Your task to perform on an android device: turn off picture-in-picture Image 0: 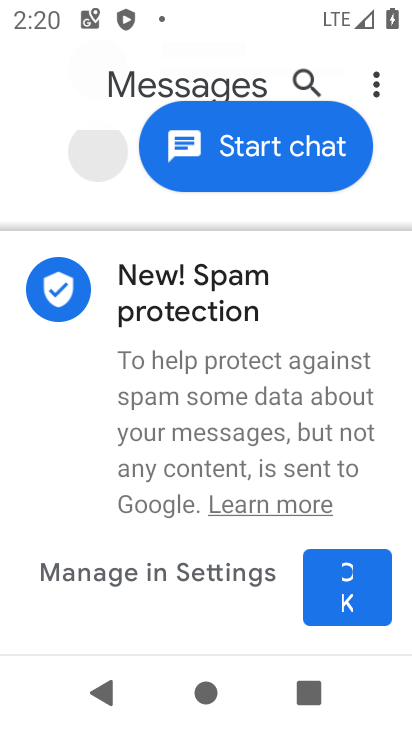
Step 0: press home button
Your task to perform on an android device: turn off picture-in-picture Image 1: 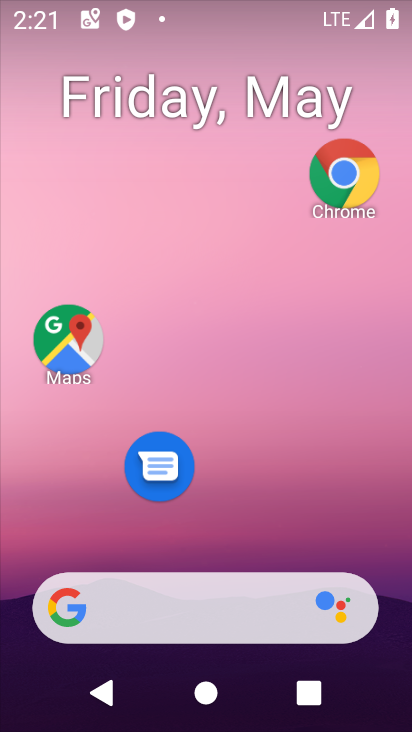
Step 1: drag from (330, 176) to (325, 278)
Your task to perform on an android device: turn off picture-in-picture Image 2: 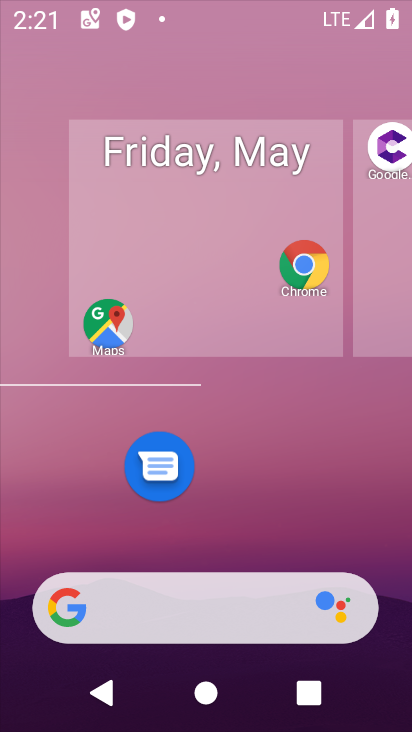
Step 2: click (274, 444)
Your task to perform on an android device: turn off picture-in-picture Image 3: 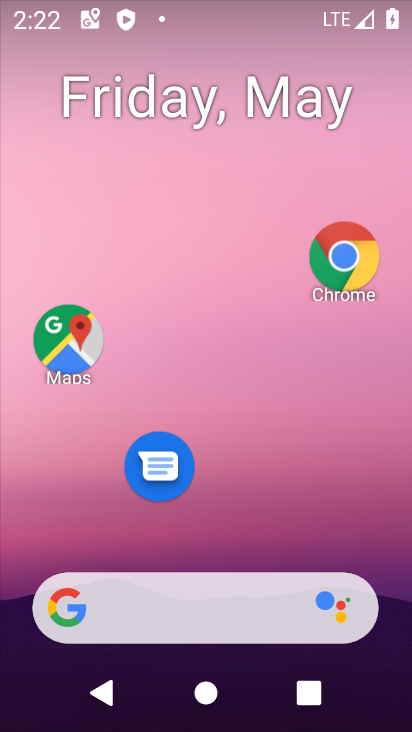
Step 3: click (343, 274)
Your task to perform on an android device: turn off picture-in-picture Image 4: 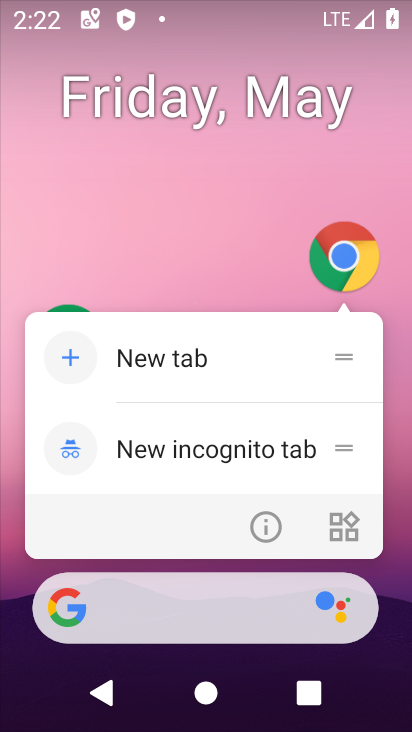
Step 4: click (267, 518)
Your task to perform on an android device: turn off picture-in-picture Image 5: 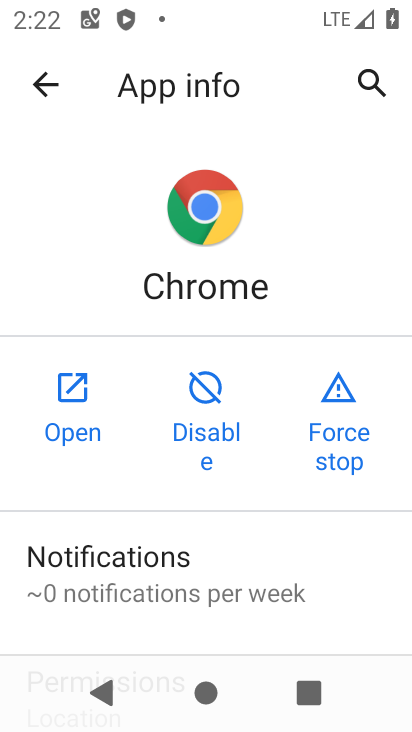
Step 5: drag from (285, 600) to (293, 319)
Your task to perform on an android device: turn off picture-in-picture Image 6: 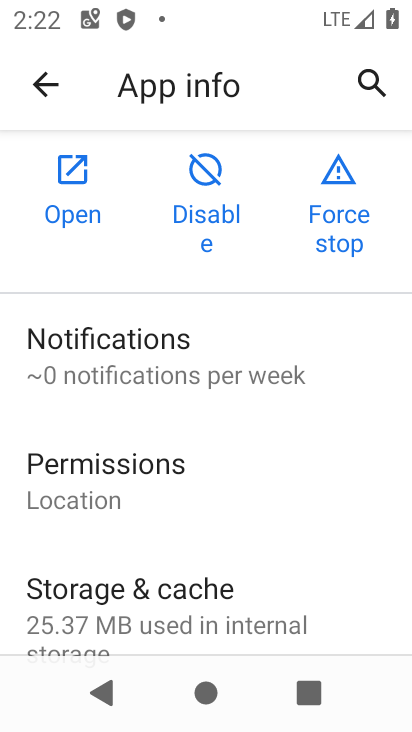
Step 6: drag from (289, 345) to (289, 143)
Your task to perform on an android device: turn off picture-in-picture Image 7: 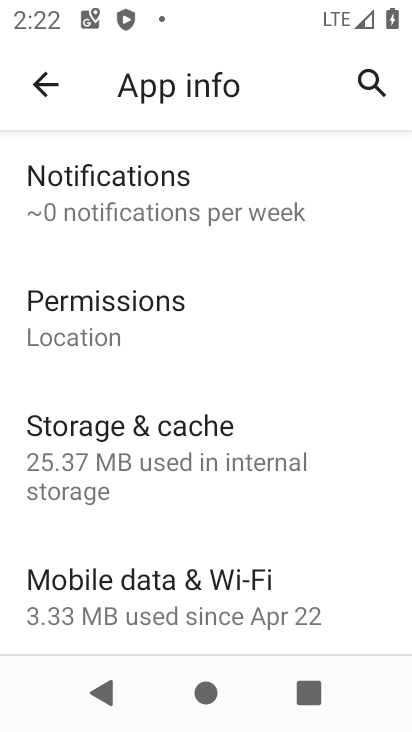
Step 7: drag from (279, 523) to (291, 157)
Your task to perform on an android device: turn off picture-in-picture Image 8: 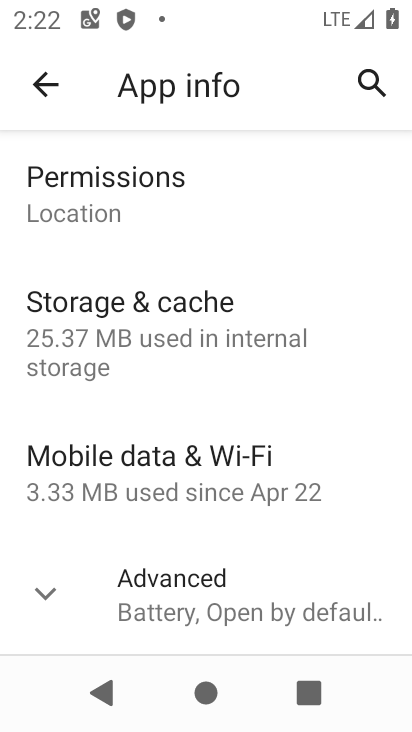
Step 8: click (159, 590)
Your task to perform on an android device: turn off picture-in-picture Image 9: 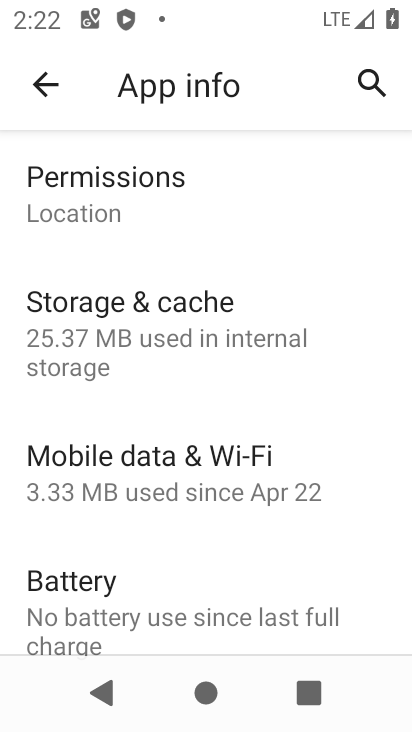
Step 9: drag from (184, 594) to (176, 212)
Your task to perform on an android device: turn off picture-in-picture Image 10: 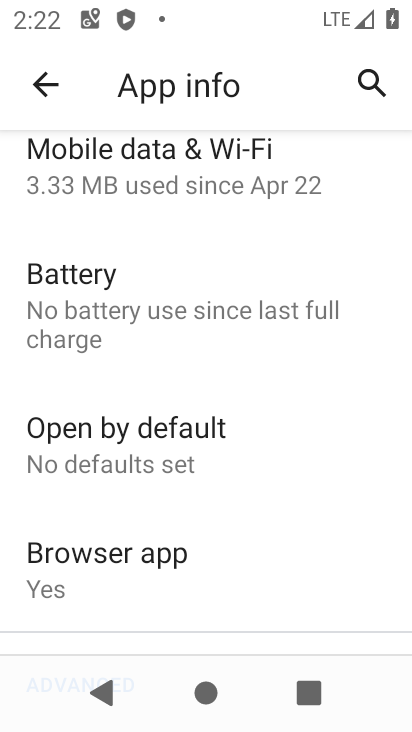
Step 10: drag from (222, 605) to (218, 120)
Your task to perform on an android device: turn off picture-in-picture Image 11: 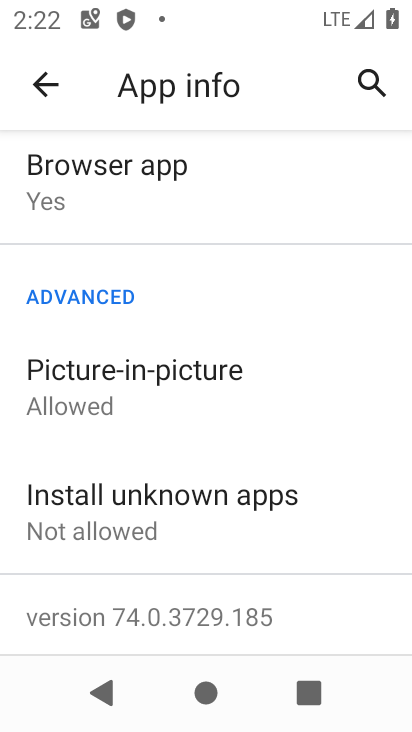
Step 11: click (77, 386)
Your task to perform on an android device: turn off picture-in-picture Image 12: 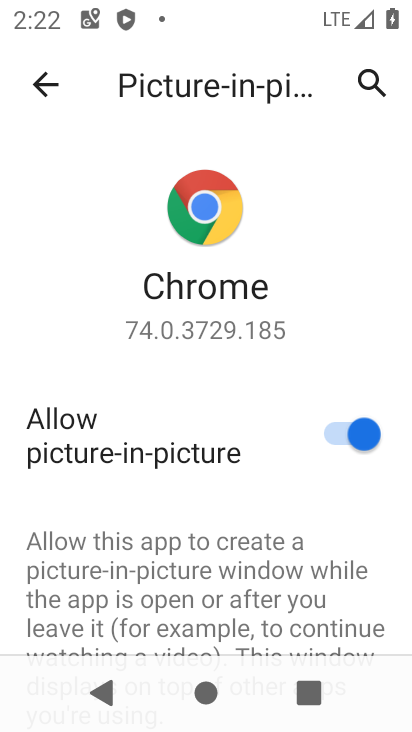
Step 12: click (334, 422)
Your task to perform on an android device: turn off picture-in-picture Image 13: 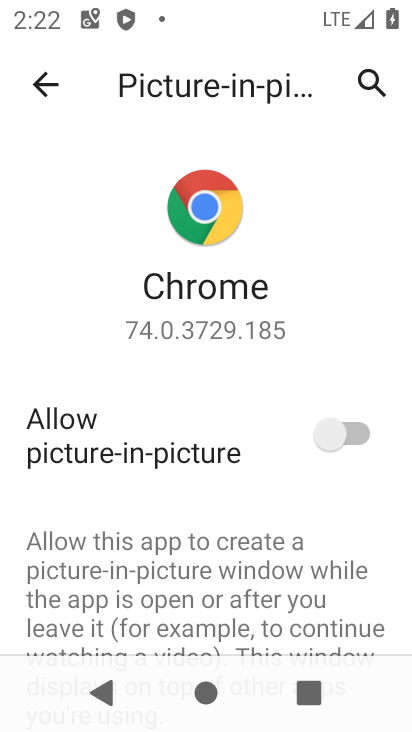
Step 13: task complete